Your task to perform on an android device: turn off translation in the chrome app Image 0: 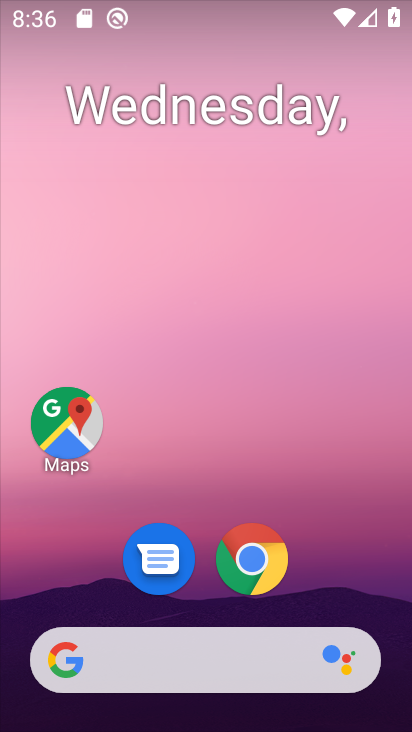
Step 0: drag from (379, 563) to (379, 159)
Your task to perform on an android device: turn off translation in the chrome app Image 1: 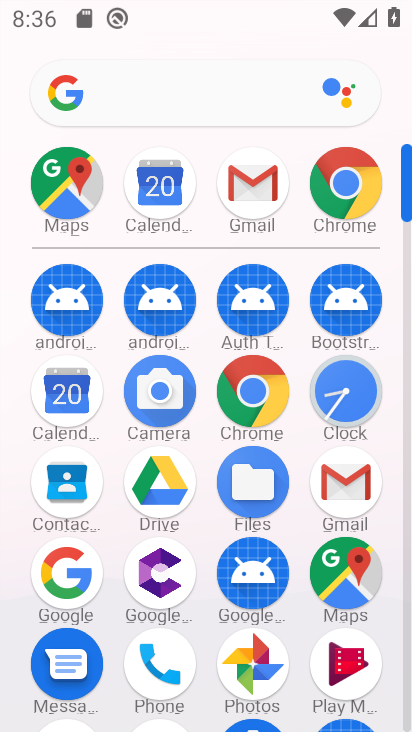
Step 1: click (261, 400)
Your task to perform on an android device: turn off translation in the chrome app Image 2: 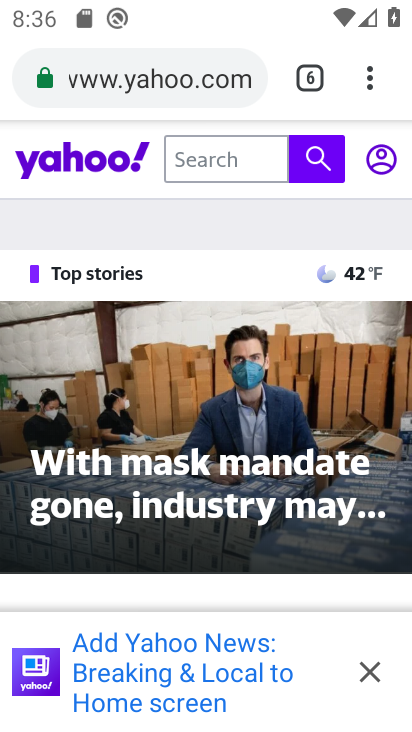
Step 2: click (379, 85)
Your task to perform on an android device: turn off translation in the chrome app Image 3: 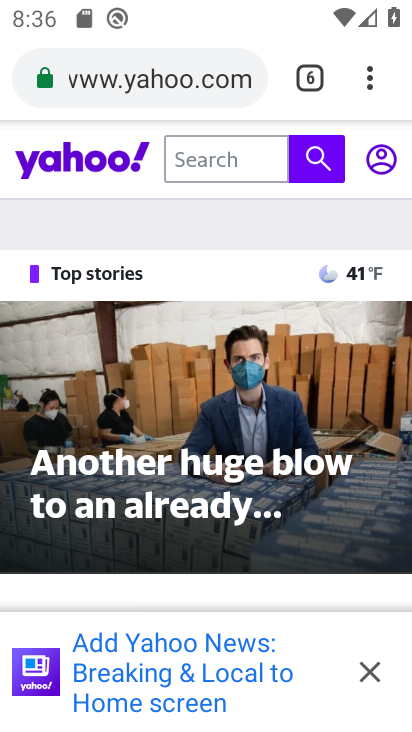
Step 3: drag from (379, 85) to (123, 605)
Your task to perform on an android device: turn off translation in the chrome app Image 4: 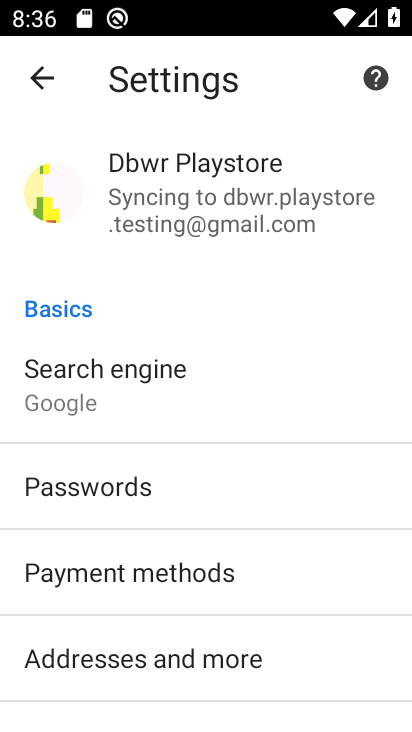
Step 4: drag from (307, 651) to (332, 290)
Your task to perform on an android device: turn off translation in the chrome app Image 5: 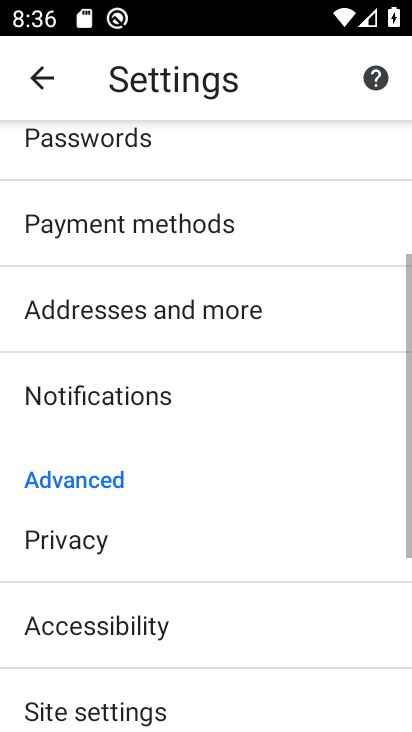
Step 5: drag from (316, 614) to (317, 268)
Your task to perform on an android device: turn off translation in the chrome app Image 6: 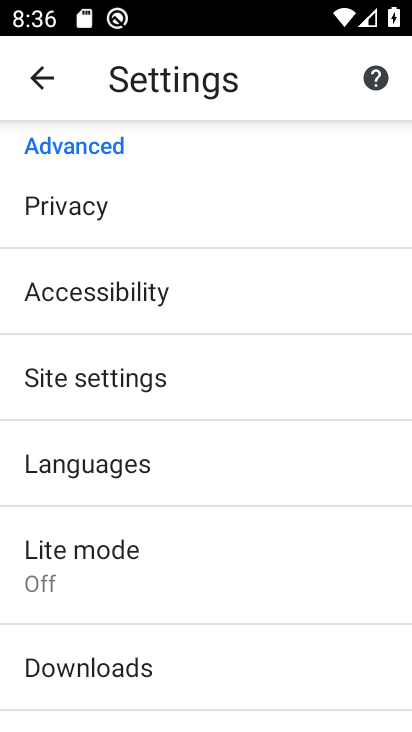
Step 6: drag from (292, 579) to (333, 216)
Your task to perform on an android device: turn off translation in the chrome app Image 7: 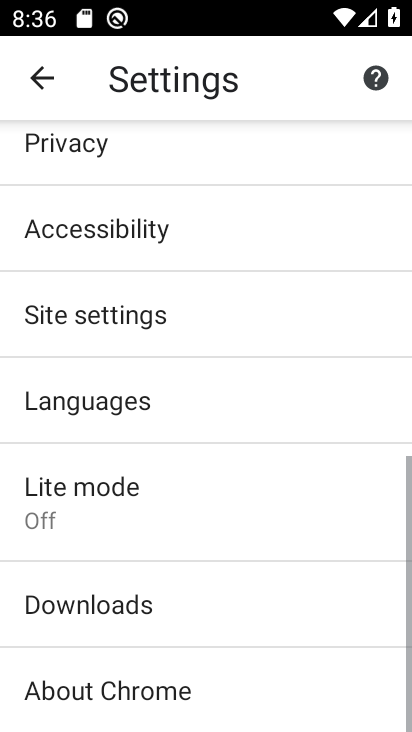
Step 7: drag from (315, 557) to (347, 234)
Your task to perform on an android device: turn off translation in the chrome app Image 8: 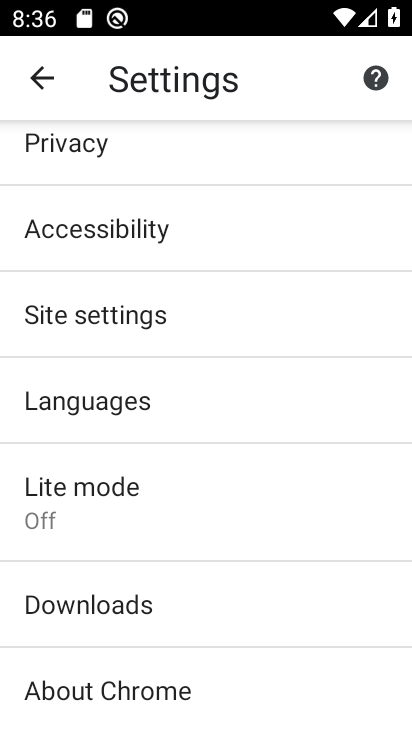
Step 8: click (121, 398)
Your task to perform on an android device: turn off translation in the chrome app Image 9: 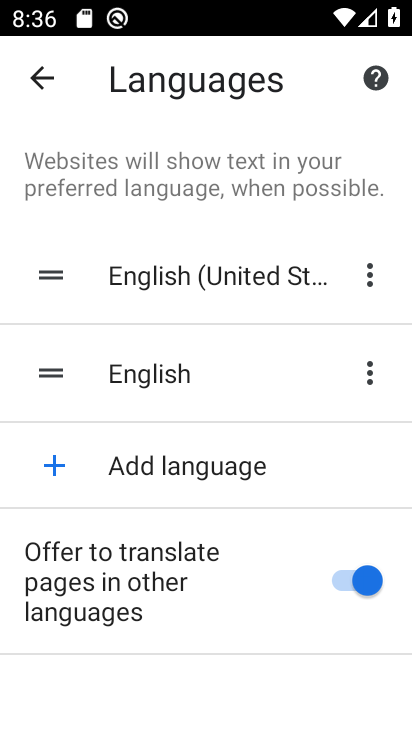
Step 9: click (345, 579)
Your task to perform on an android device: turn off translation in the chrome app Image 10: 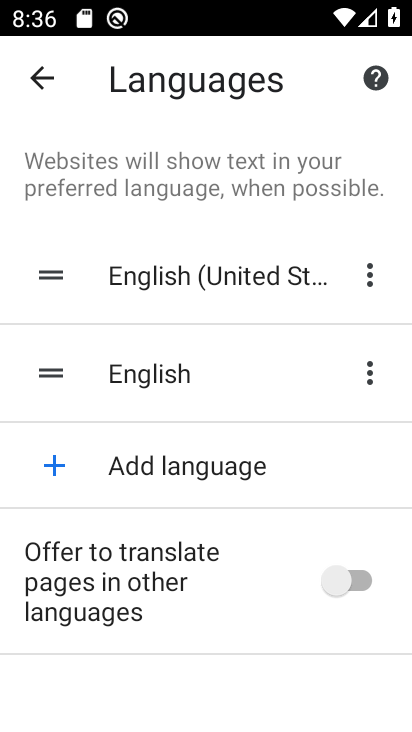
Step 10: task complete